Your task to perform on an android device: Open the web browser Image 0: 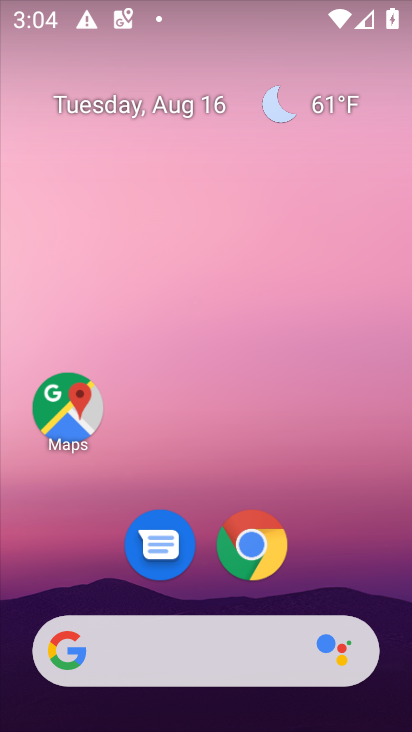
Step 0: click (244, 548)
Your task to perform on an android device: Open the web browser Image 1: 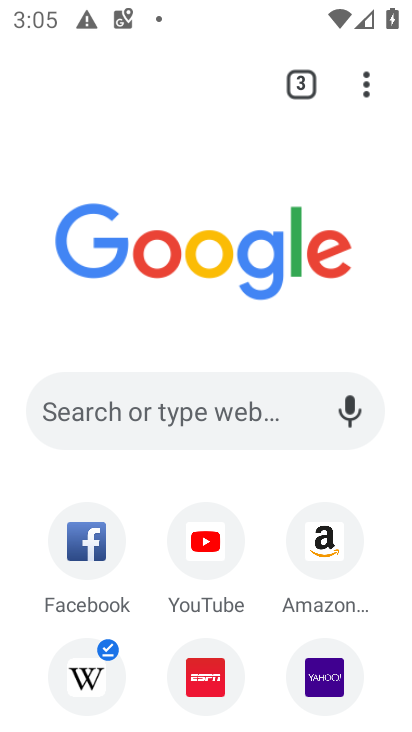
Step 1: task complete